Your task to perform on an android device: set an alarm Image 0: 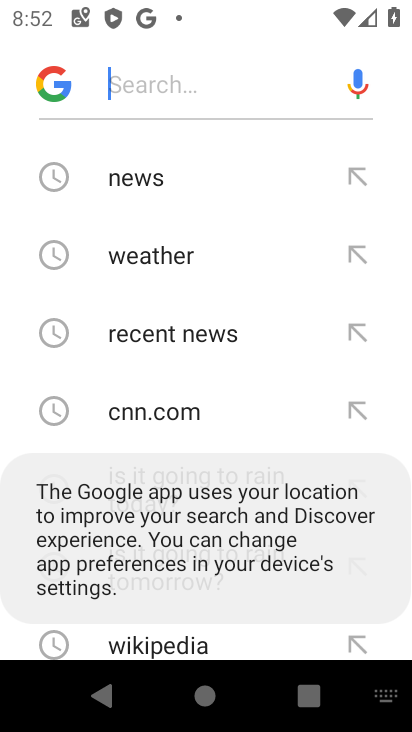
Step 0: press home button
Your task to perform on an android device: set an alarm Image 1: 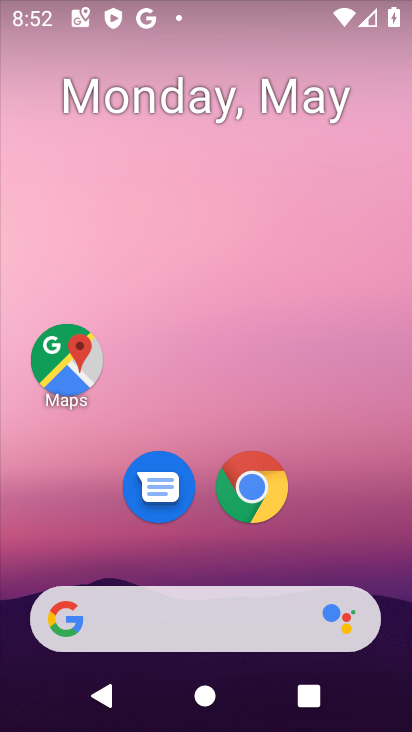
Step 1: drag from (193, 538) to (222, 135)
Your task to perform on an android device: set an alarm Image 2: 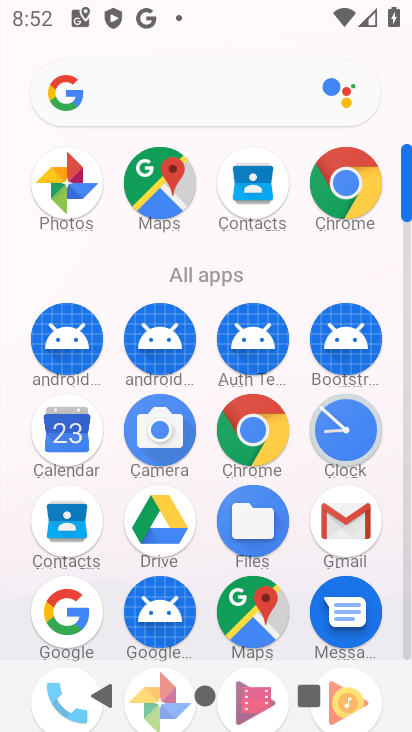
Step 2: click (333, 425)
Your task to perform on an android device: set an alarm Image 3: 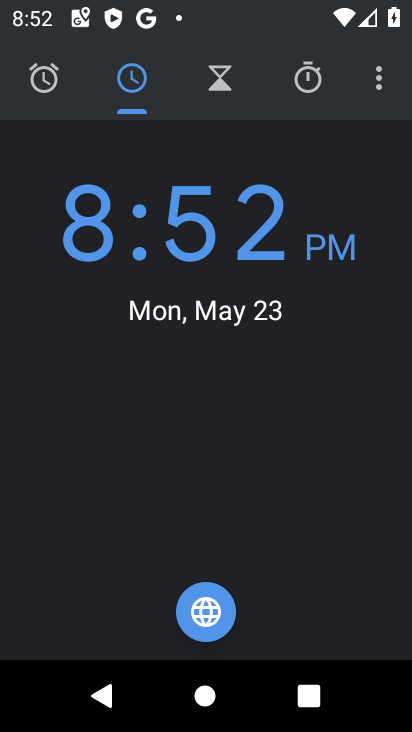
Step 3: click (57, 78)
Your task to perform on an android device: set an alarm Image 4: 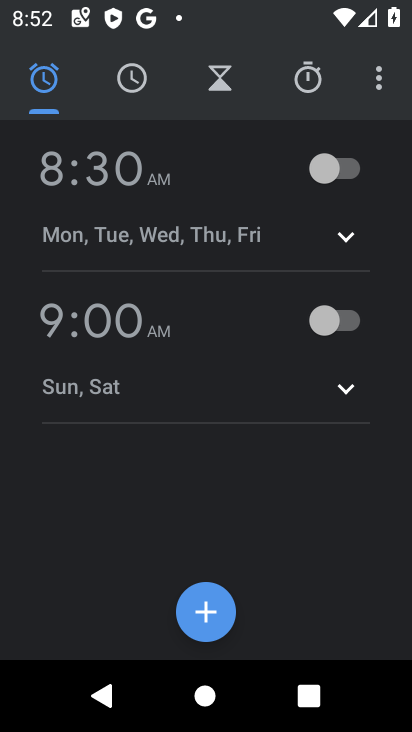
Step 4: click (348, 323)
Your task to perform on an android device: set an alarm Image 5: 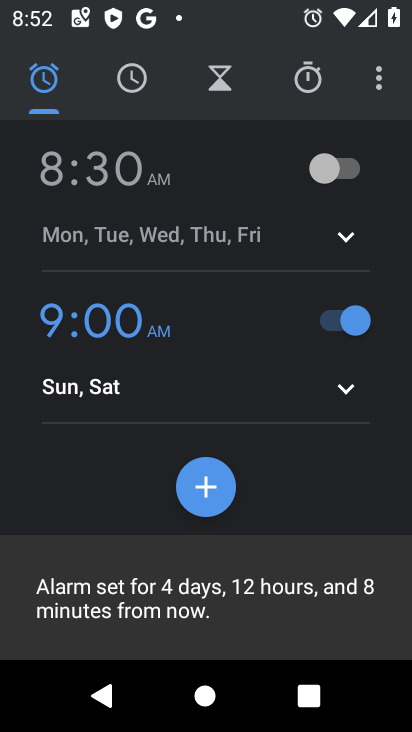
Step 5: task complete